Your task to perform on an android device: delete a single message in the gmail app Image 0: 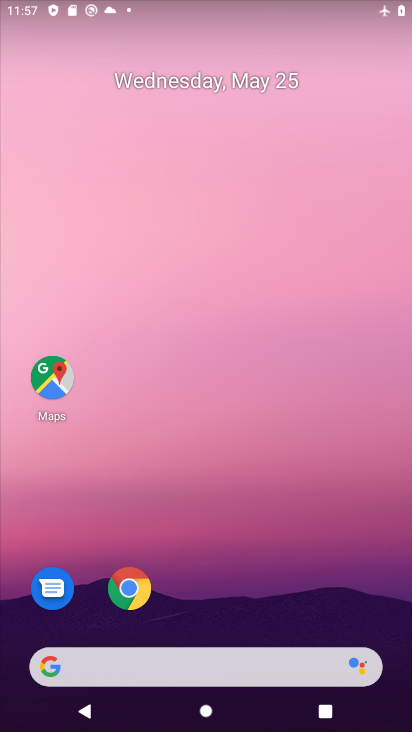
Step 0: drag from (208, 622) to (284, 139)
Your task to perform on an android device: delete a single message in the gmail app Image 1: 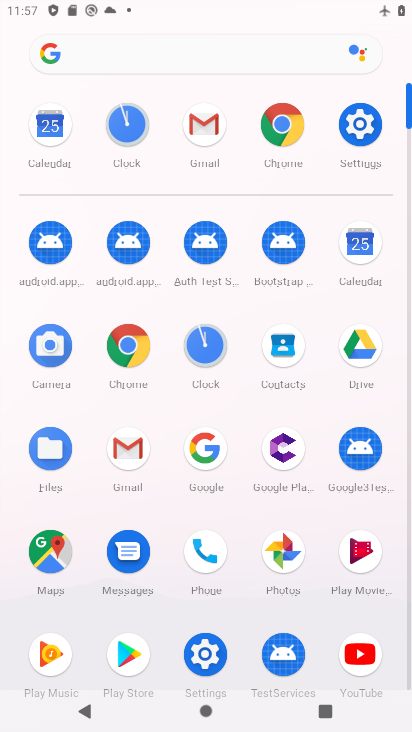
Step 1: click (206, 131)
Your task to perform on an android device: delete a single message in the gmail app Image 2: 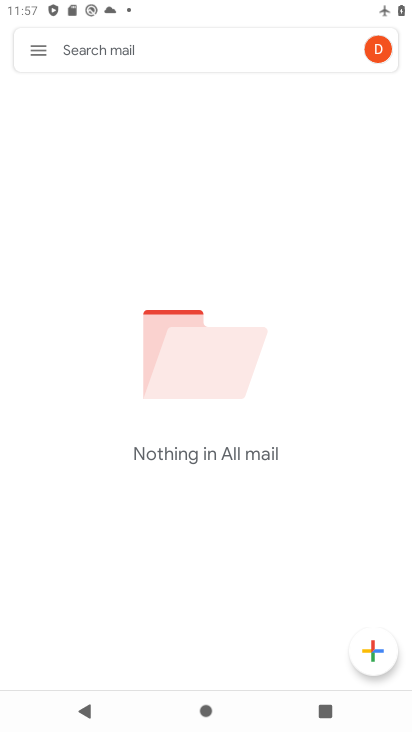
Step 2: click (34, 52)
Your task to perform on an android device: delete a single message in the gmail app Image 3: 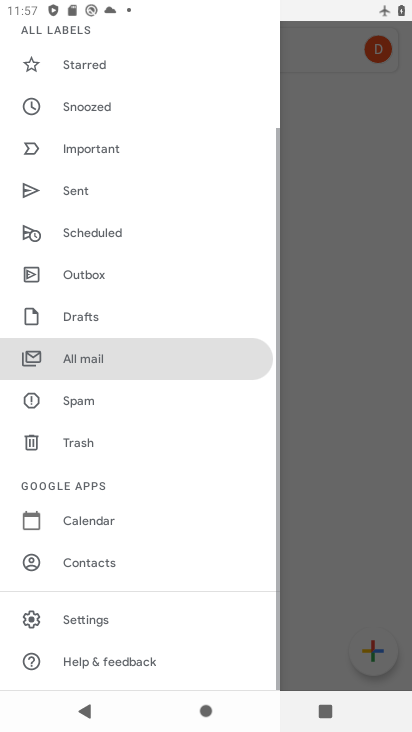
Step 3: click (97, 362)
Your task to perform on an android device: delete a single message in the gmail app Image 4: 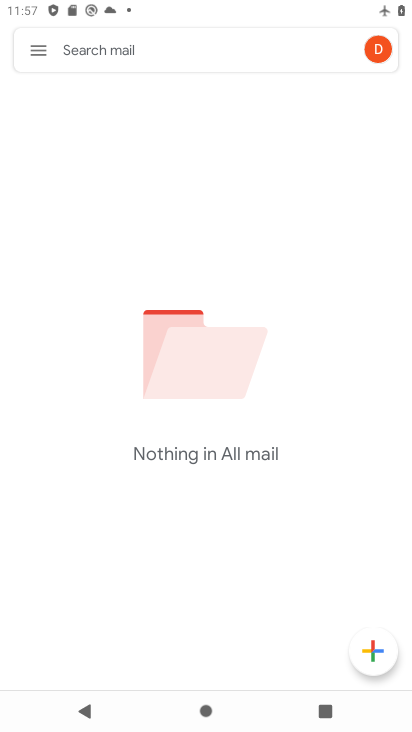
Step 4: task complete